Your task to perform on an android device: delete the emails in spam in the gmail app Image 0: 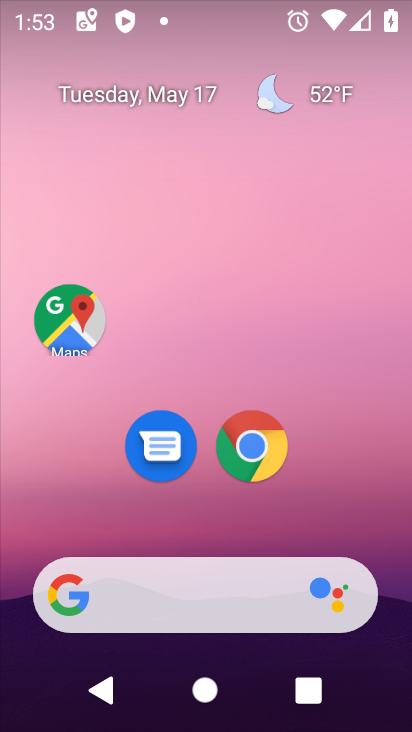
Step 0: drag from (203, 518) to (296, 160)
Your task to perform on an android device: delete the emails in spam in the gmail app Image 1: 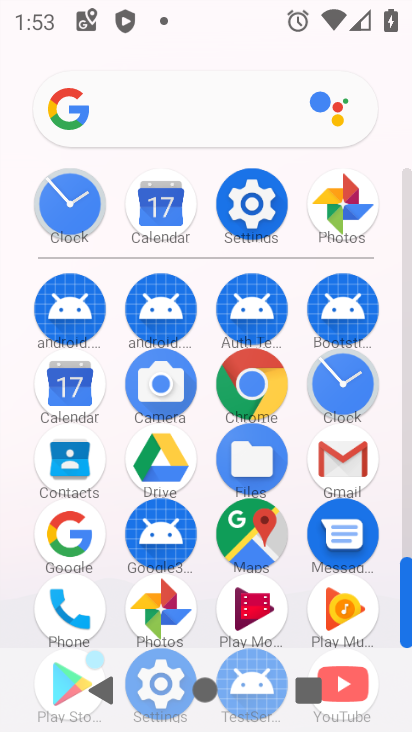
Step 1: click (345, 464)
Your task to perform on an android device: delete the emails in spam in the gmail app Image 2: 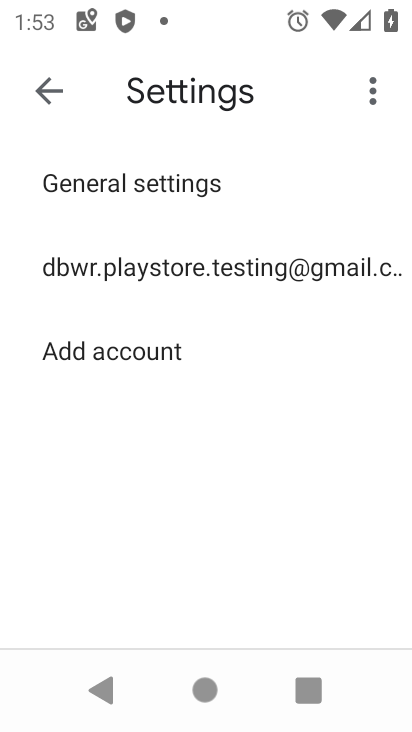
Step 2: click (255, 274)
Your task to perform on an android device: delete the emails in spam in the gmail app Image 3: 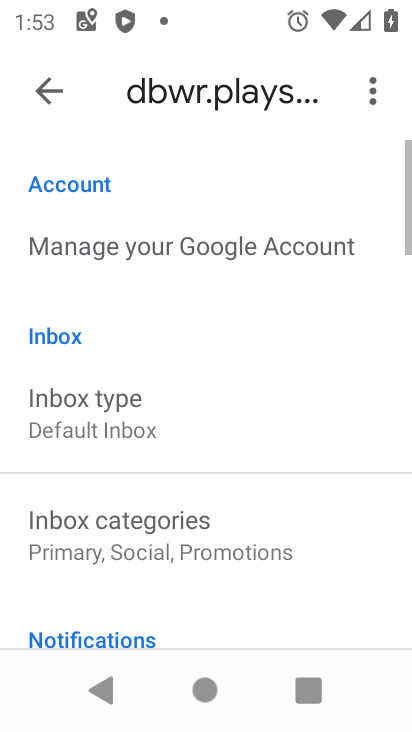
Step 3: click (48, 100)
Your task to perform on an android device: delete the emails in spam in the gmail app Image 4: 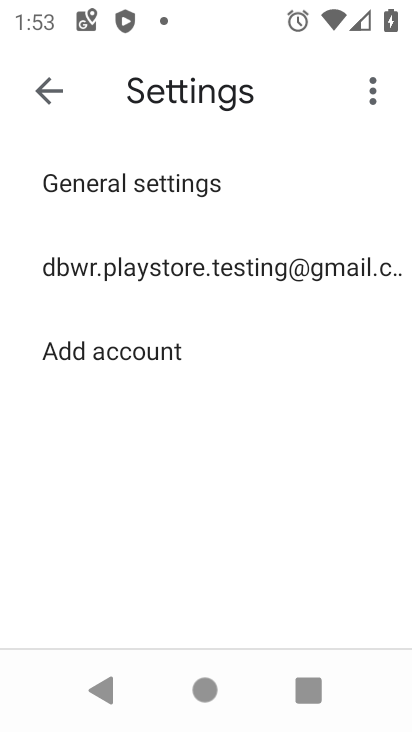
Step 4: click (43, 95)
Your task to perform on an android device: delete the emails in spam in the gmail app Image 5: 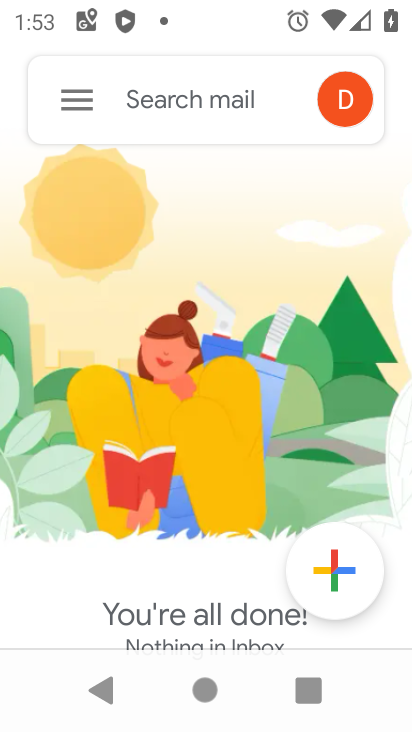
Step 5: click (72, 97)
Your task to perform on an android device: delete the emails in spam in the gmail app Image 6: 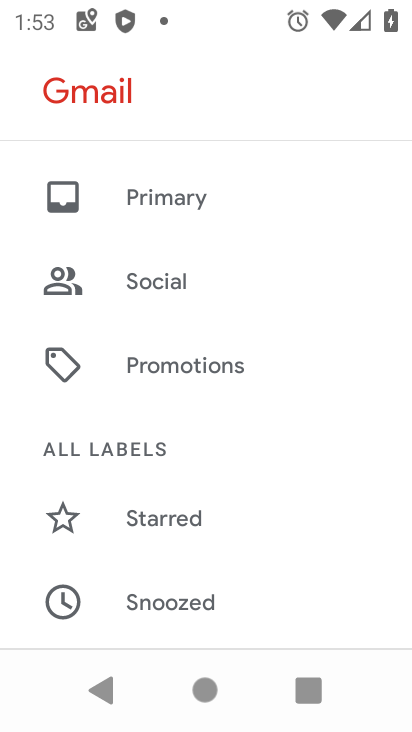
Step 6: drag from (187, 541) to (257, 274)
Your task to perform on an android device: delete the emails in spam in the gmail app Image 7: 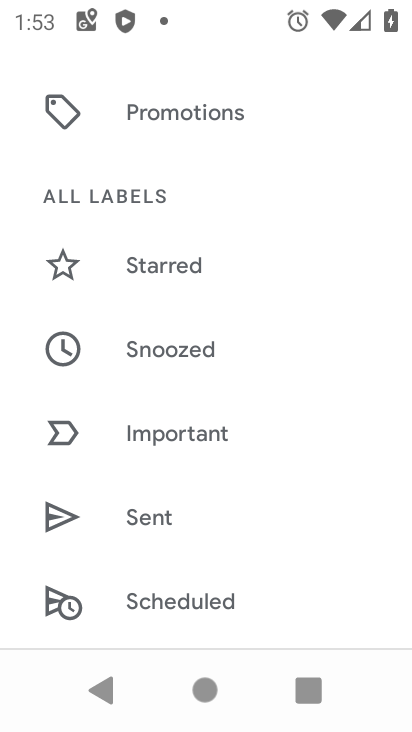
Step 7: drag from (210, 576) to (308, 191)
Your task to perform on an android device: delete the emails in spam in the gmail app Image 8: 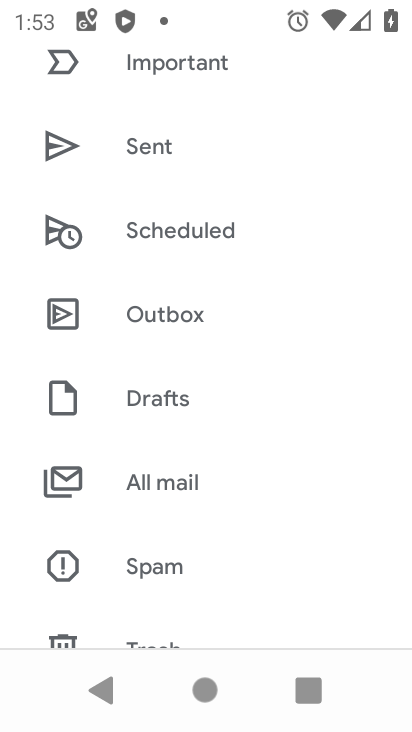
Step 8: click (205, 563)
Your task to perform on an android device: delete the emails in spam in the gmail app Image 9: 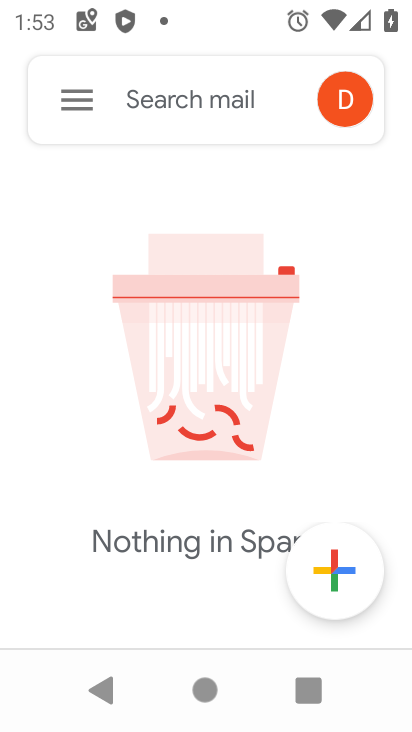
Step 9: task complete